Your task to perform on an android device: add a contact Image 0: 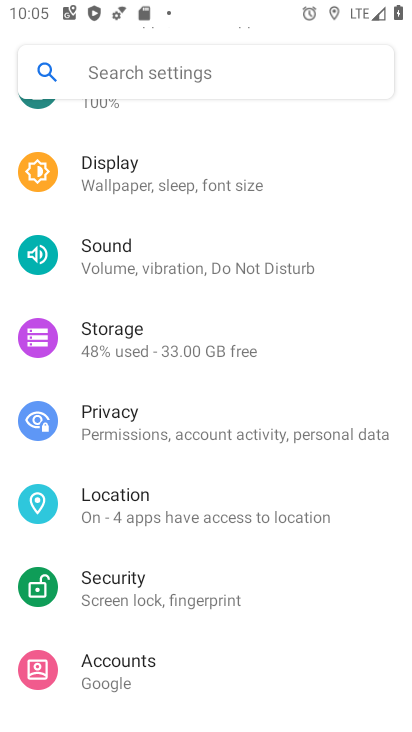
Step 0: press home button
Your task to perform on an android device: add a contact Image 1: 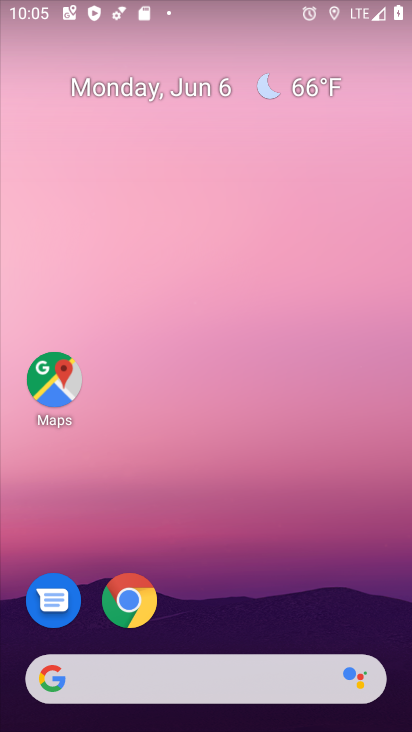
Step 1: drag from (4, 711) to (197, 201)
Your task to perform on an android device: add a contact Image 2: 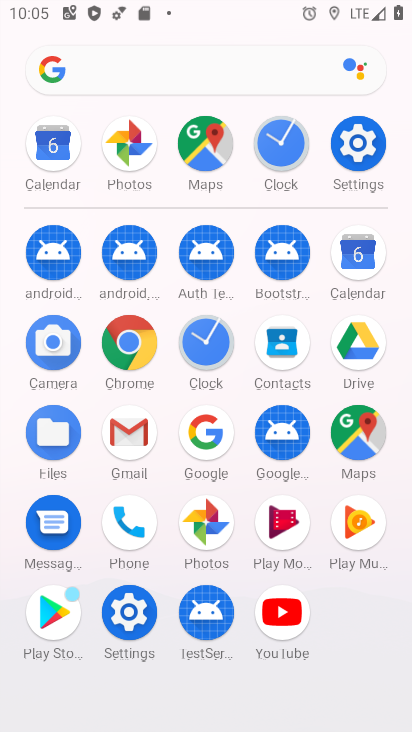
Step 2: click (112, 518)
Your task to perform on an android device: add a contact Image 3: 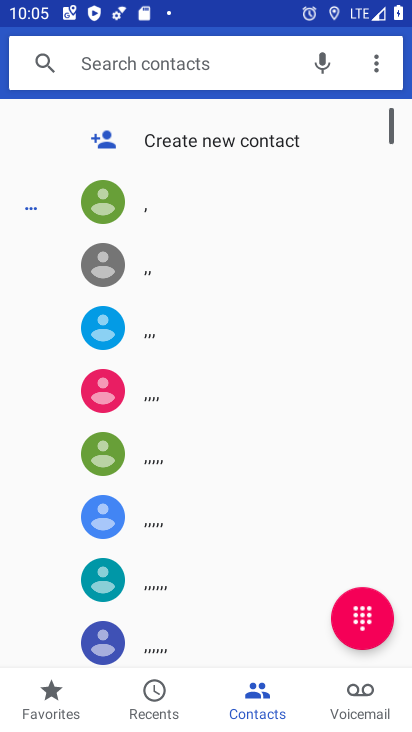
Step 3: click (232, 140)
Your task to perform on an android device: add a contact Image 4: 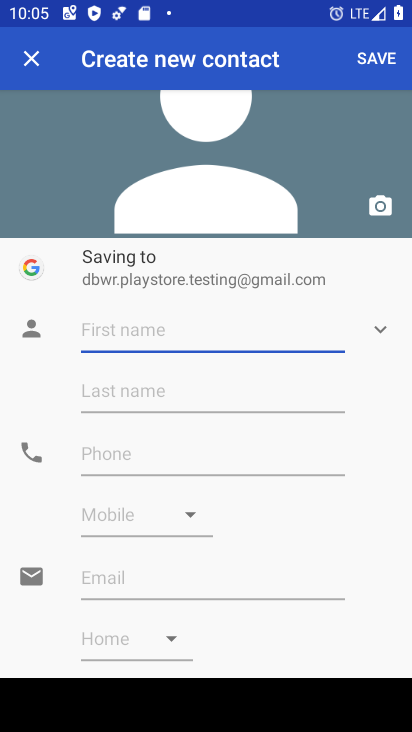
Step 4: click (189, 342)
Your task to perform on an android device: add a contact Image 5: 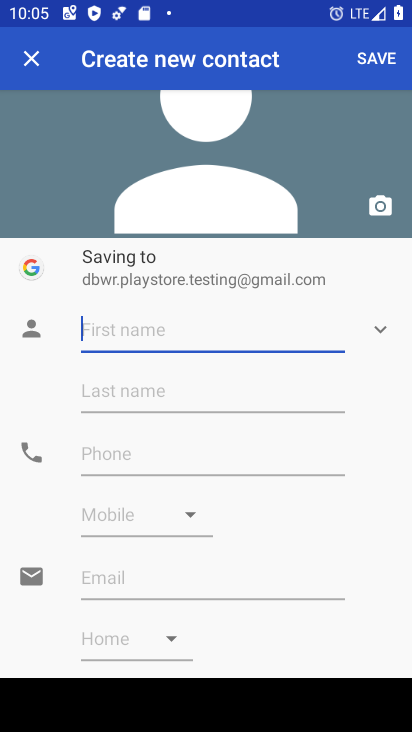
Step 5: type "nhgf"
Your task to perform on an android device: add a contact Image 6: 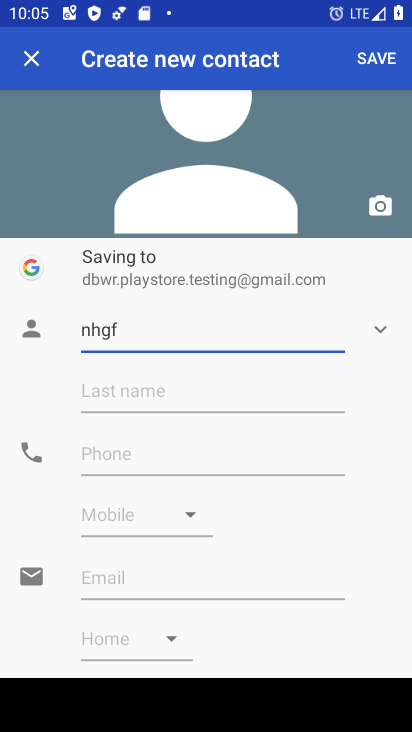
Step 6: click (375, 54)
Your task to perform on an android device: add a contact Image 7: 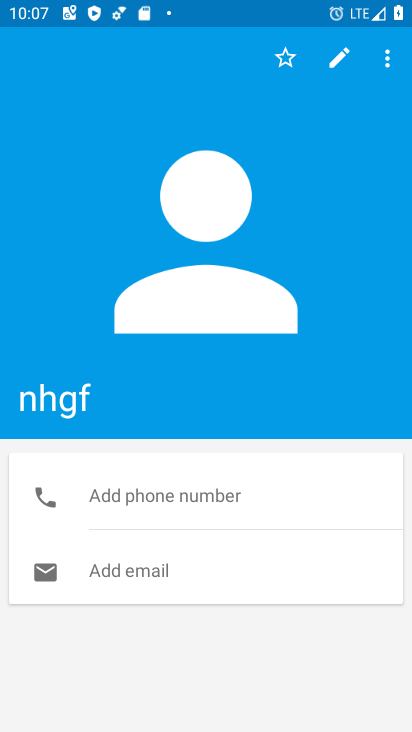
Step 7: task complete